Your task to perform on an android device: install app "Google Translate" Image 0: 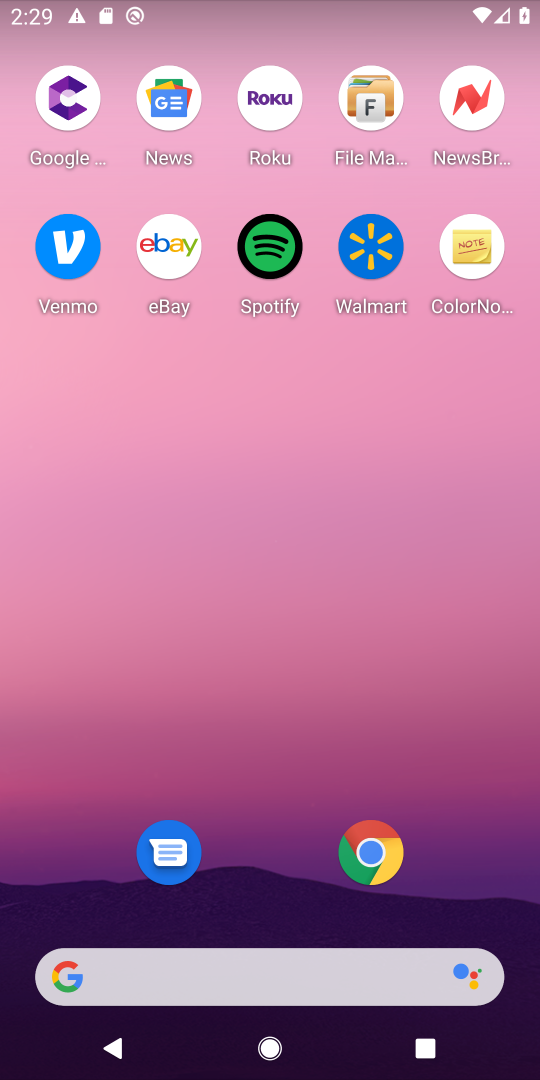
Step 0: drag from (261, 896) to (263, 124)
Your task to perform on an android device: install app "Google Translate" Image 1: 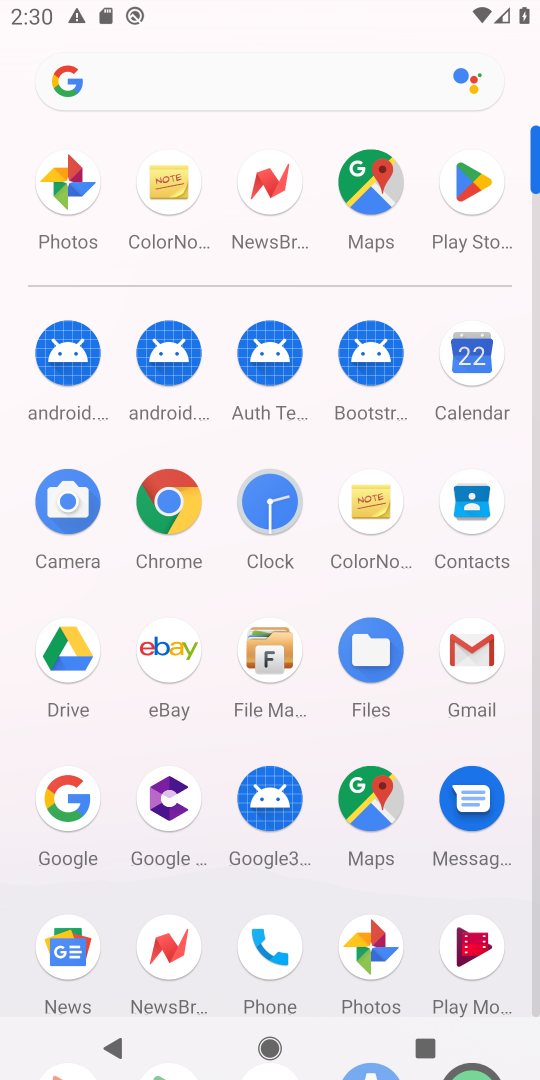
Step 1: click (467, 185)
Your task to perform on an android device: install app "Google Translate" Image 2: 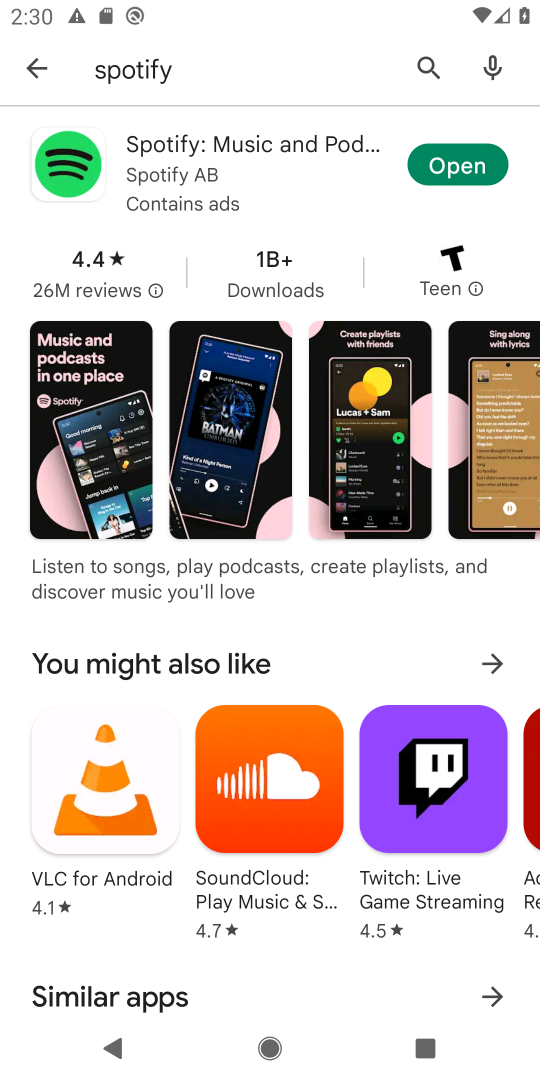
Step 2: click (423, 66)
Your task to perform on an android device: install app "Google Translate" Image 3: 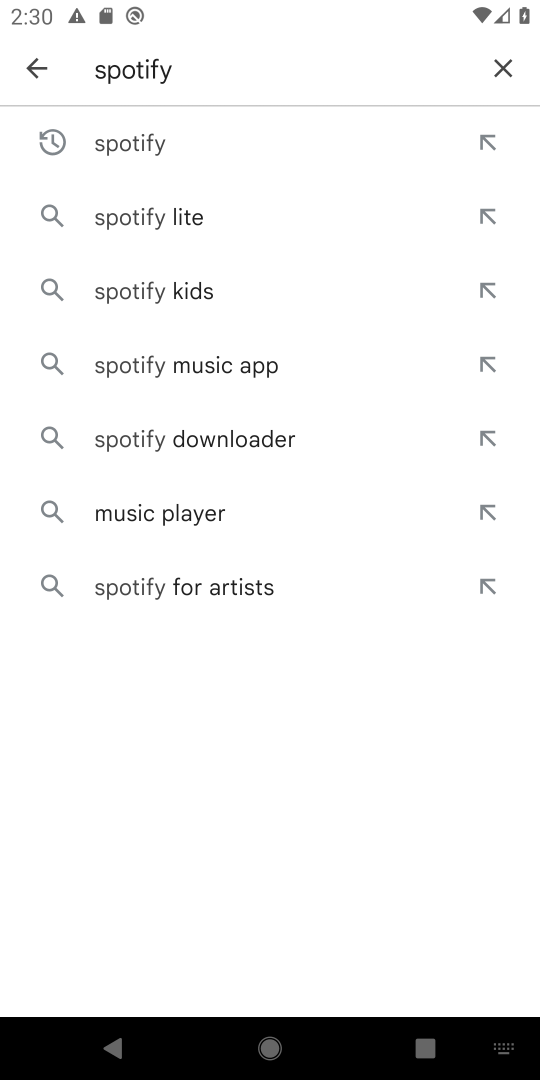
Step 3: click (496, 61)
Your task to perform on an android device: install app "Google Translate" Image 4: 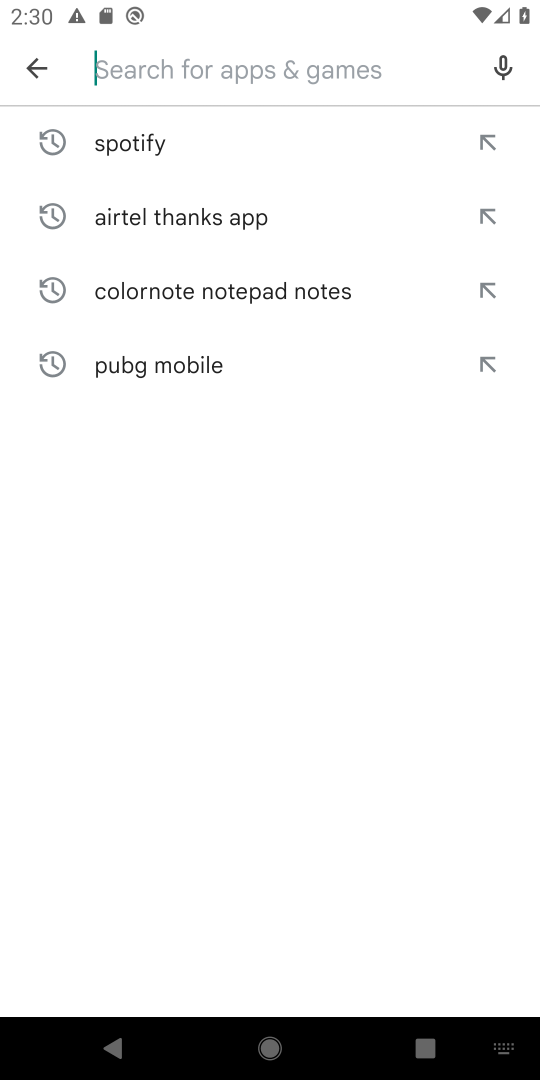
Step 4: type "Google Translate"
Your task to perform on an android device: install app "Google Translate" Image 5: 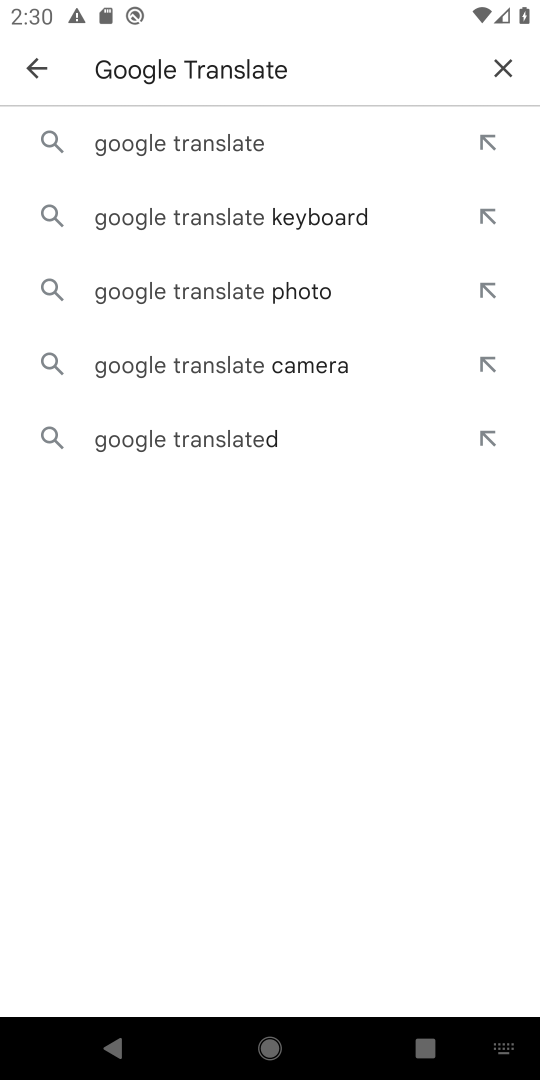
Step 5: click (227, 140)
Your task to perform on an android device: install app "Google Translate" Image 6: 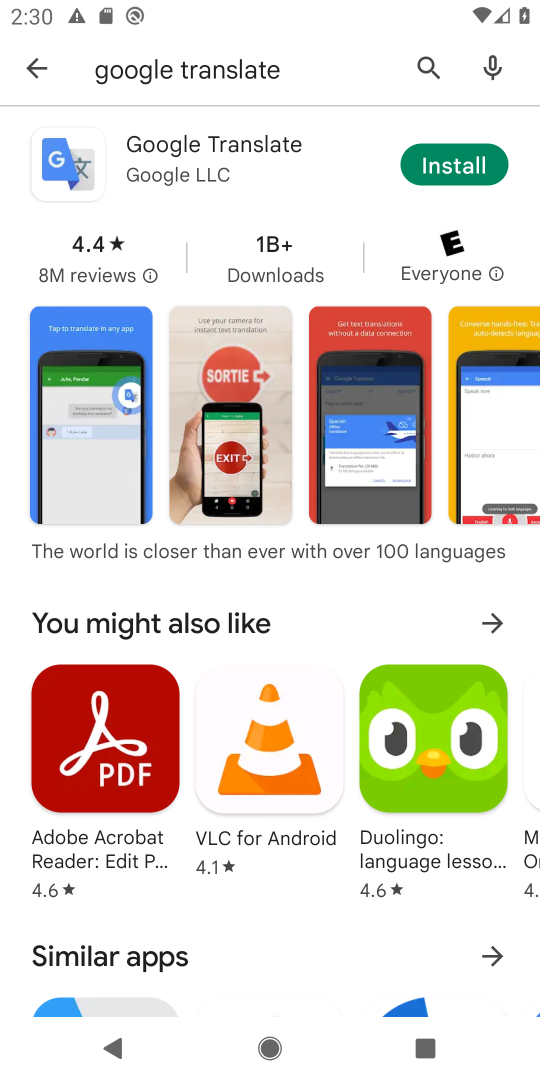
Step 6: click (439, 171)
Your task to perform on an android device: install app "Google Translate" Image 7: 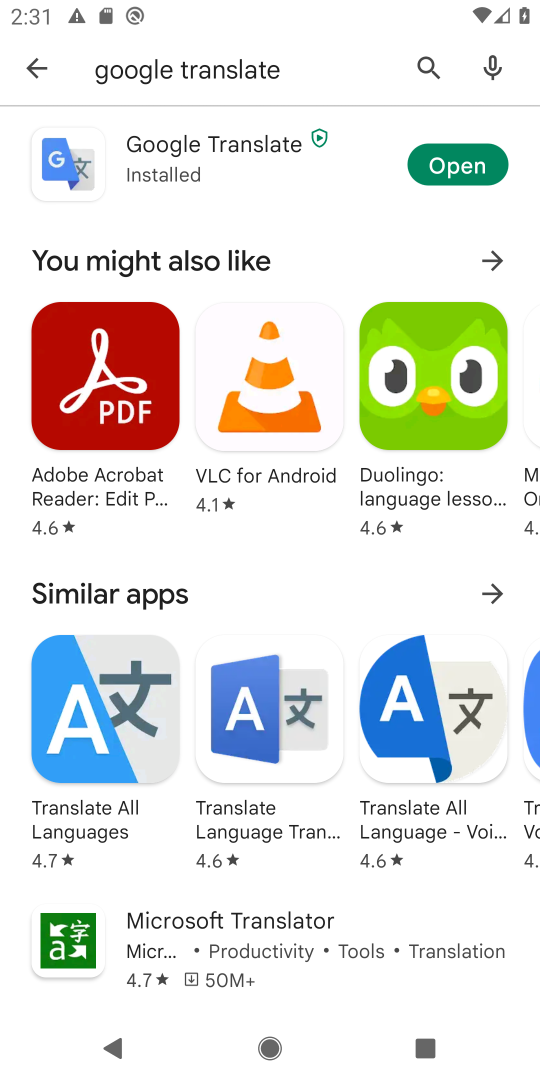
Step 7: click (424, 57)
Your task to perform on an android device: install app "Google Translate" Image 8: 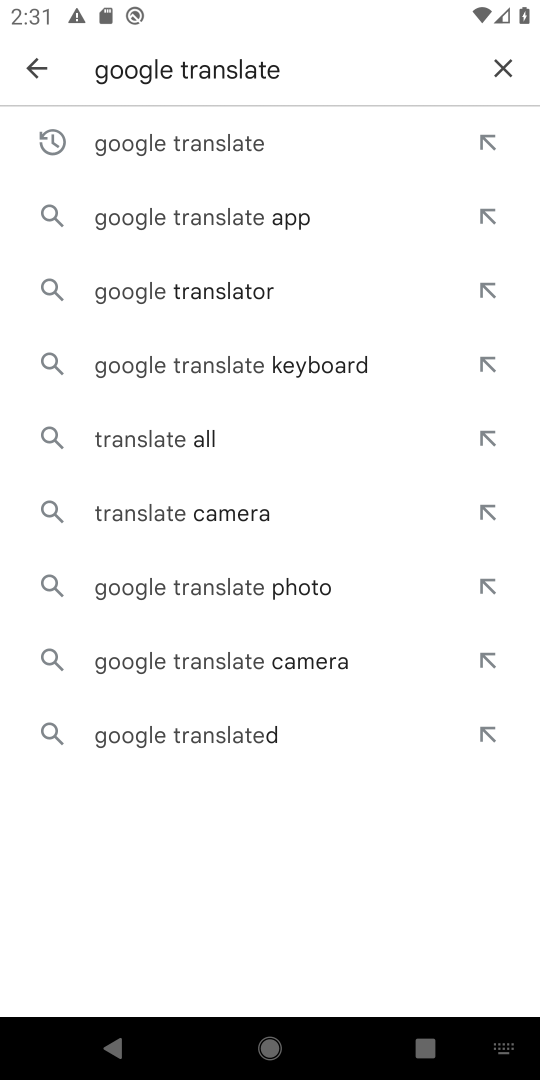
Step 8: click (502, 53)
Your task to perform on an android device: install app "Google Translate" Image 9: 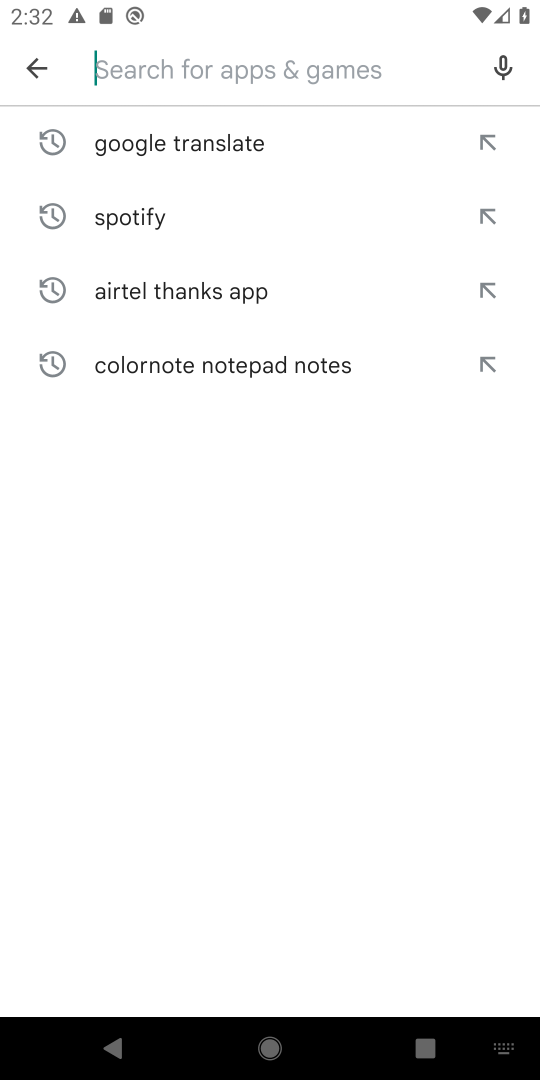
Step 9: type "Google Translate"
Your task to perform on an android device: install app "Google Translate" Image 10: 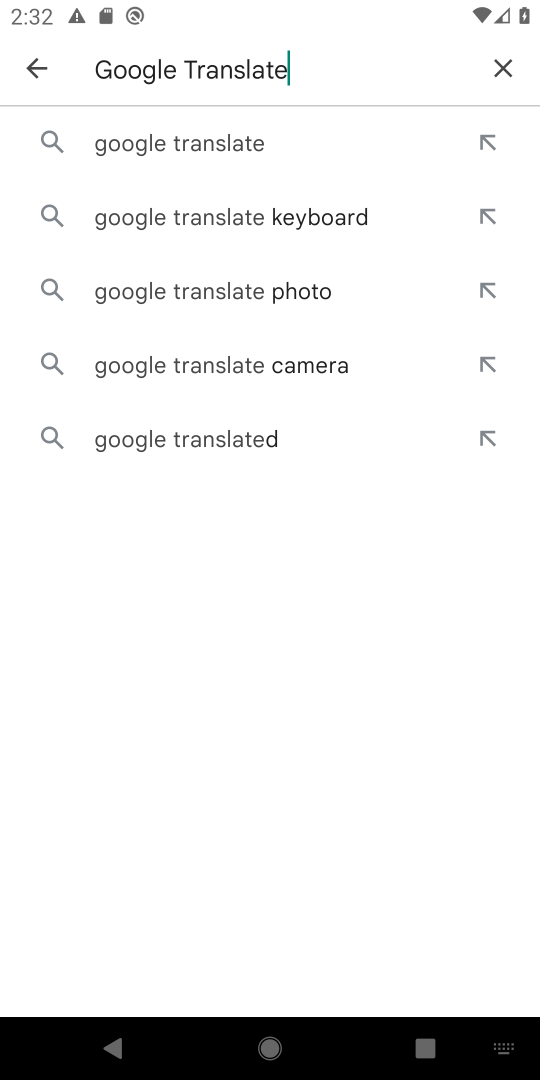
Step 10: click (206, 135)
Your task to perform on an android device: install app "Google Translate" Image 11: 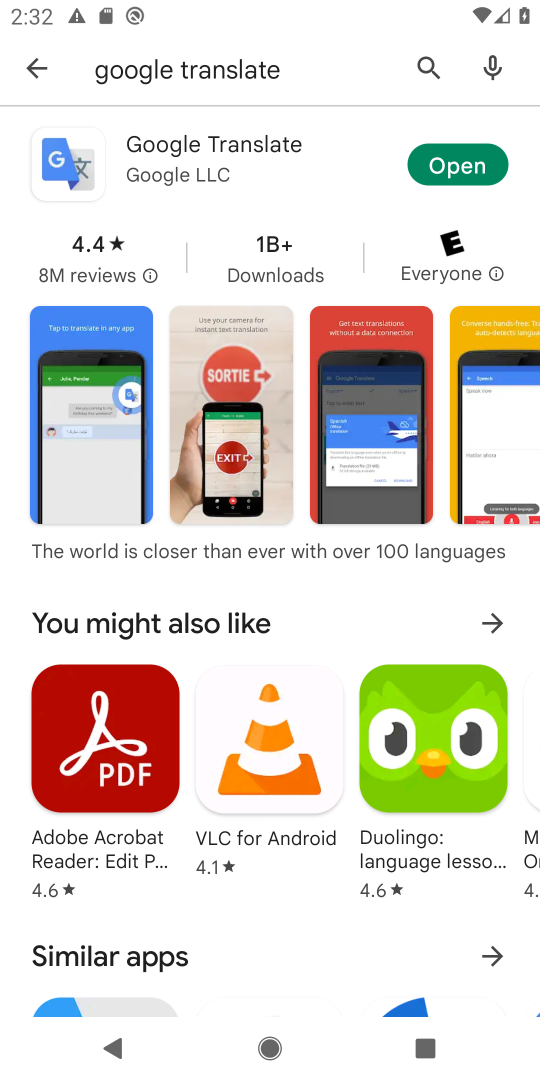
Step 11: task complete